Your task to perform on an android device: Open sound settings Image 0: 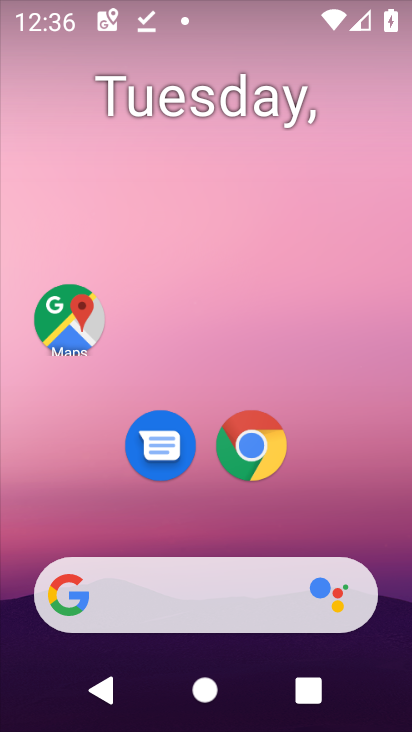
Step 0: drag from (346, 494) to (247, 98)
Your task to perform on an android device: Open sound settings Image 1: 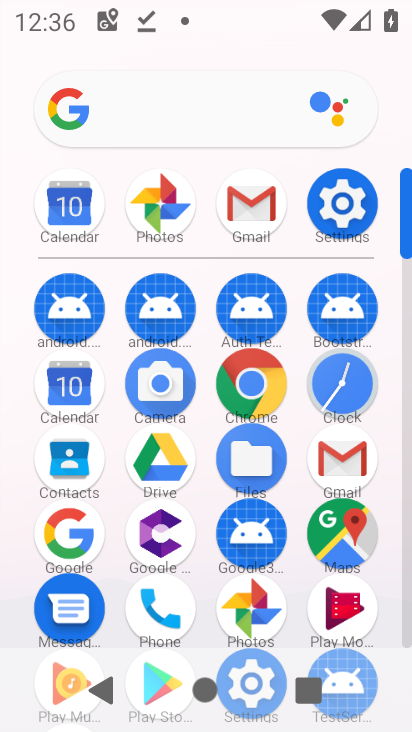
Step 1: click (341, 210)
Your task to perform on an android device: Open sound settings Image 2: 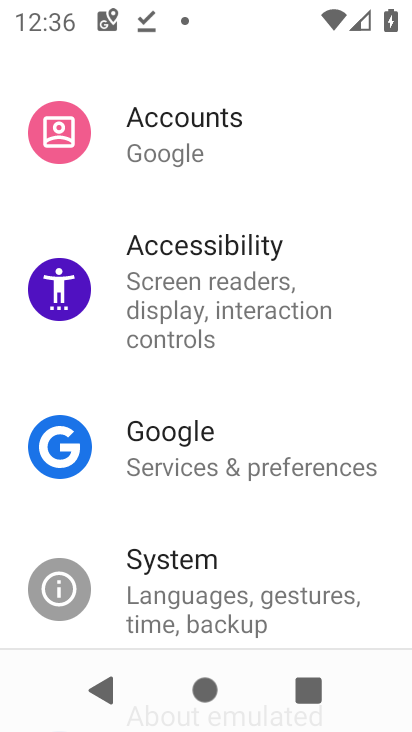
Step 2: drag from (229, 194) to (220, 662)
Your task to perform on an android device: Open sound settings Image 3: 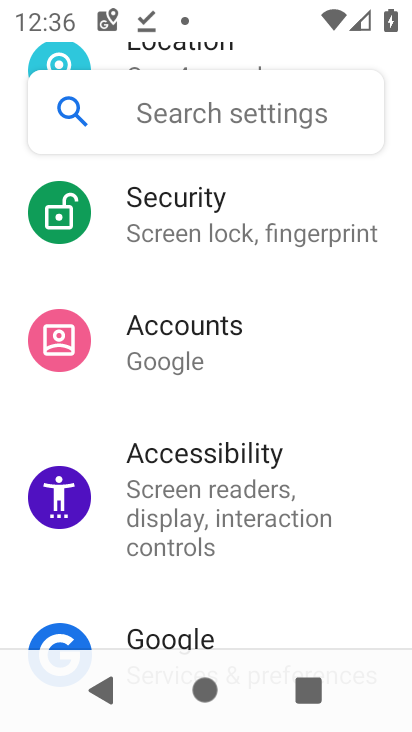
Step 3: drag from (218, 271) to (189, 707)
Your task to perform on an android device: Open sound settings Image 4: 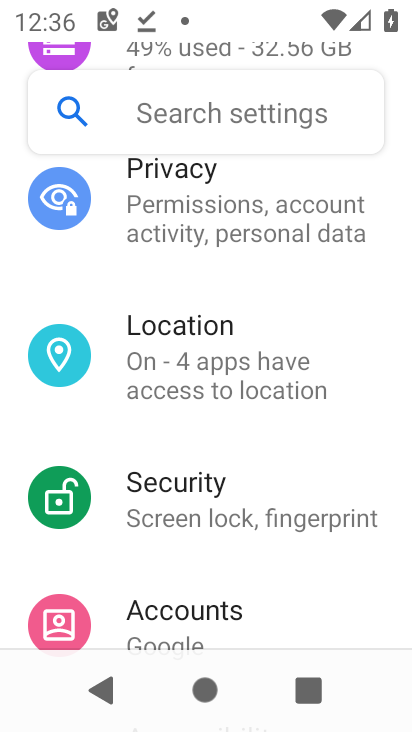
Step 4: drag from (148, 270) to (152, 687)
Your task to perform on an android device: Open sound settings Image 5: 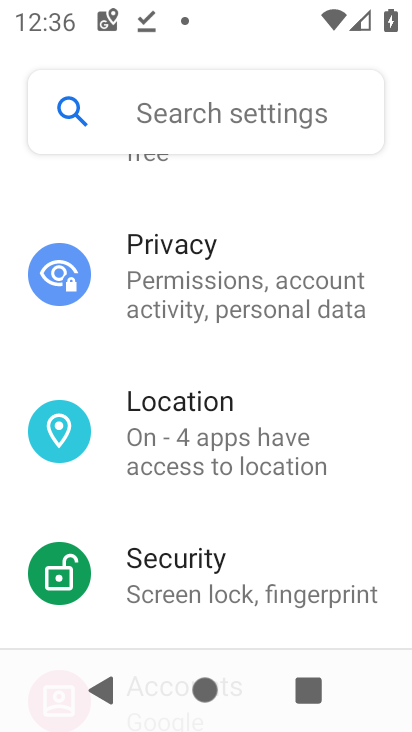
Step 5: drag from (103, 188) to (137, 603)
Your task to perform on an android device: Open sound settings Image 6: 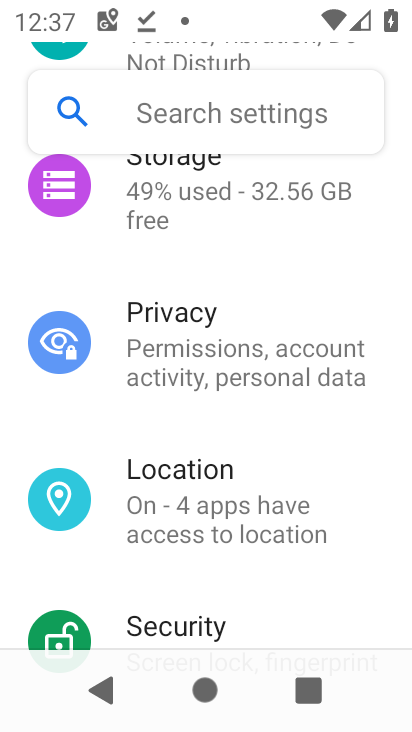
Step 6: drag from (203, 264) to (214, 730)
Your task to perform on an android device: Open sound settings Image 7: 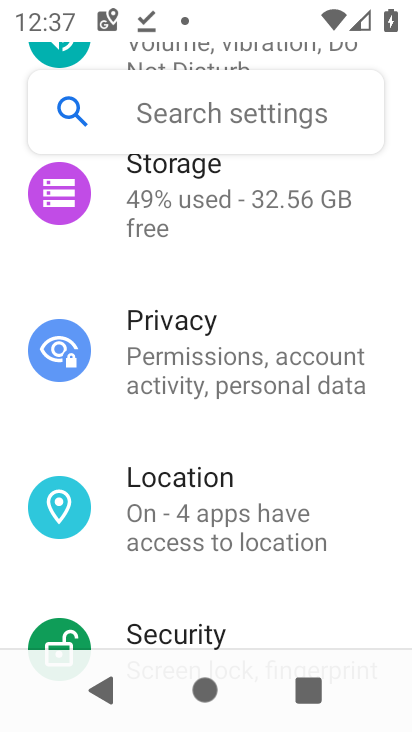
Step 7: drag from (222, 278) to (238, 730)
Your task to perform on an android device: Open sound settings Image 8: 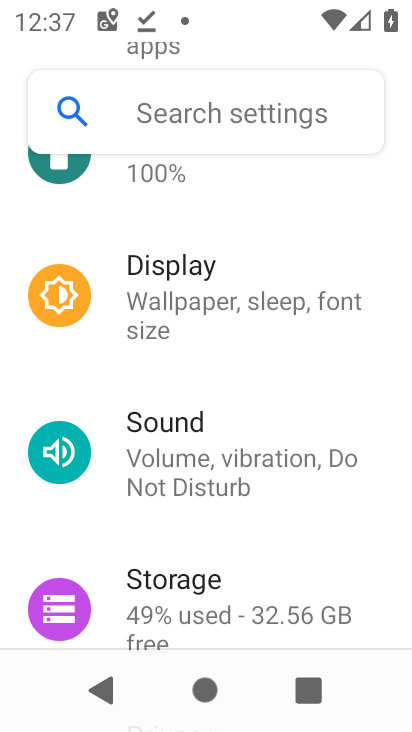
Step 8: click (170, 422)
Your task to perform on an android device: Open sound settings Image 9: 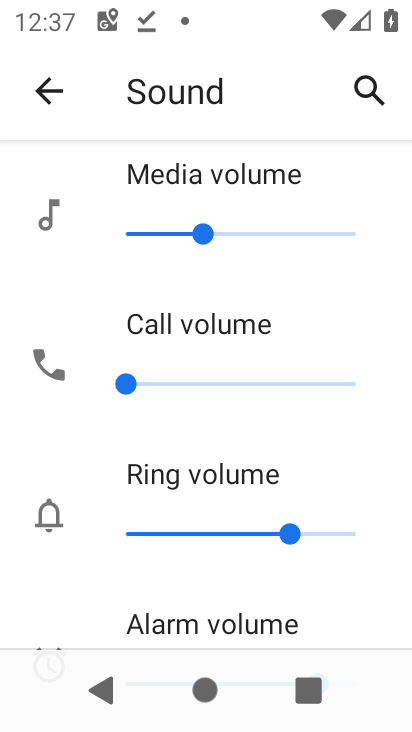
Step 9: task complete